Your task to perform on an android device: Open Google Maps Image 0: 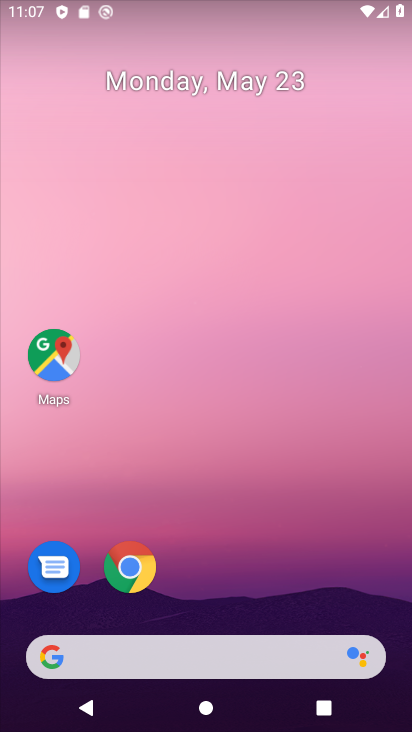
Step 0: press home button
Your task to perform on an android device: Open Google Maps Image 1: 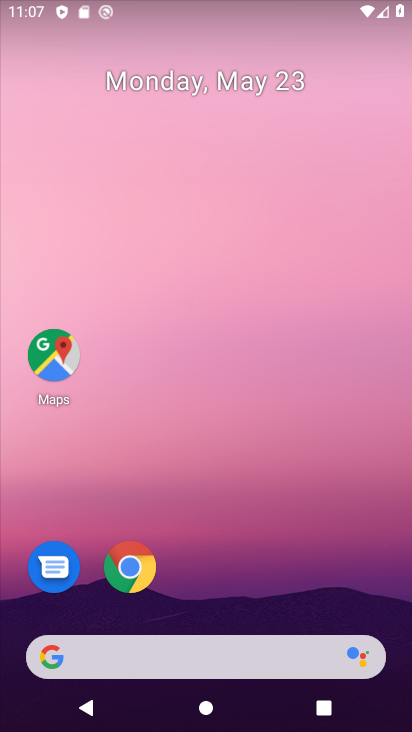
Step 1: drag from (328, 493) to (235, 82)
Your task to perform on an android device: Open Google Maps Image 2: 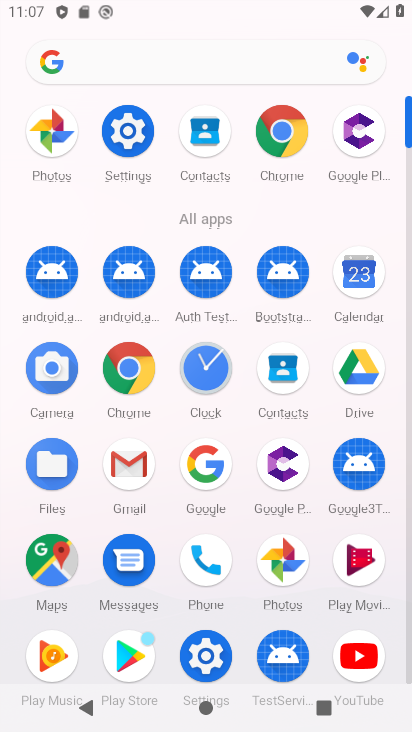
Step 2: click (30, 591)
Your task to perform on an android device: Open Google Maps Image 3: 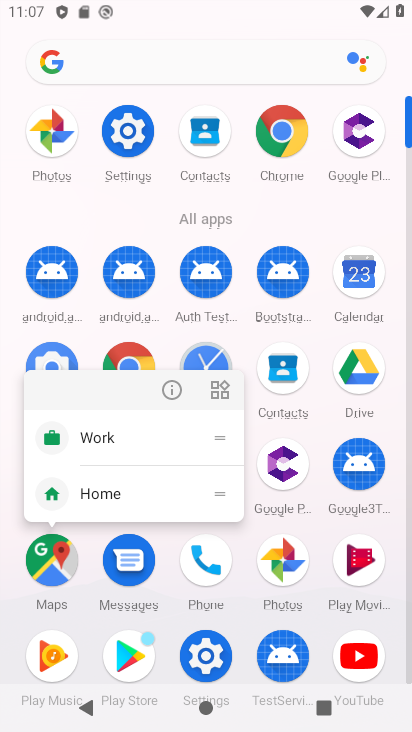
Step 3: click (57, 572)
Your task to perform on an android device: Open Google Maps Image 4: 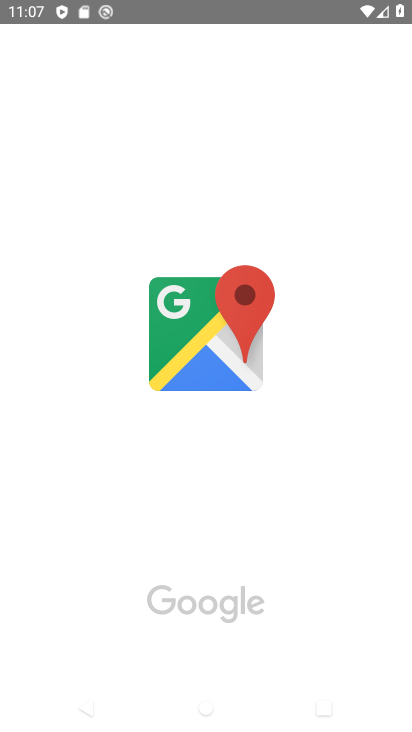
Step 4: task complete